Your task to perform on an android device: clear history in the chrome app Image 0: 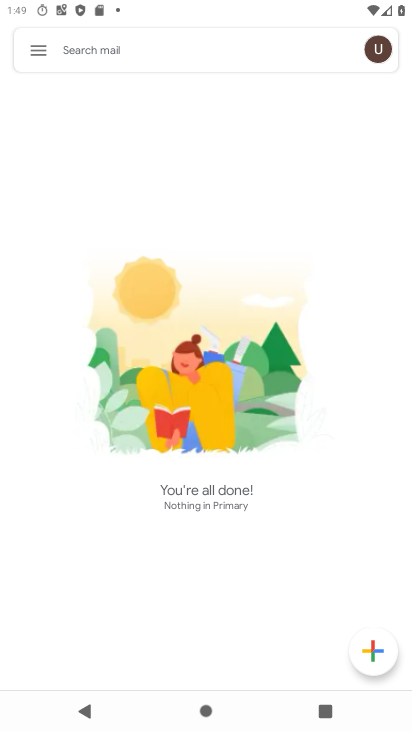
Step 0: press home button
Your task to perform on an android device: clear history in the chrome app Image 1: 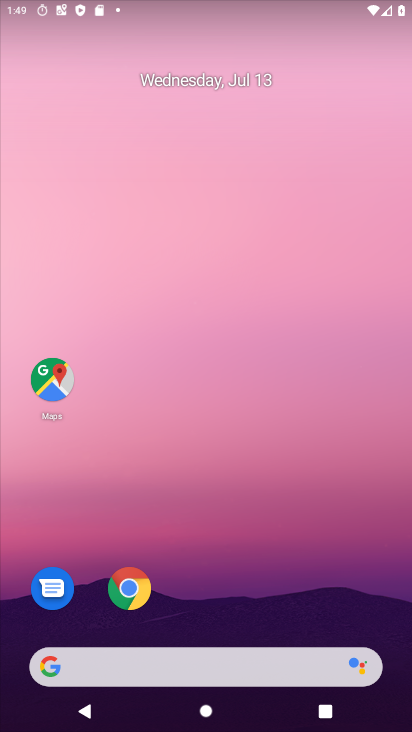
Step 1: drag from (175, 629) to (198, 453)
Your task to perform on an android device: clear history in the chrome app Image 2: 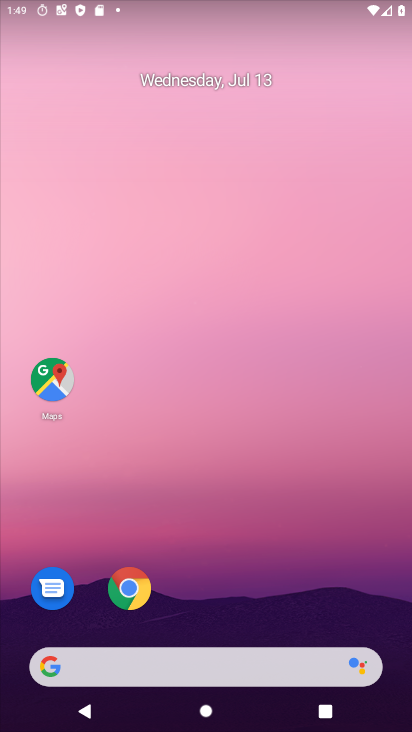
Step 2: click (131, 593)
Your task to perform on an android device: clear history in the chrome app Image 3: 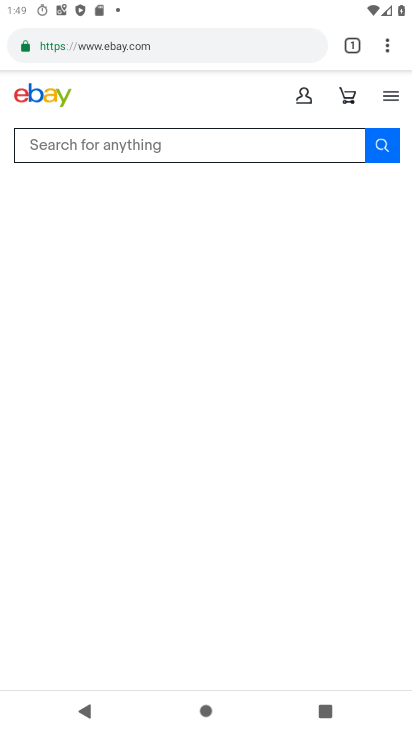
Step 3: click (381, 44)
Your task to perform on an android device: clear history in the chrome app Image 4: 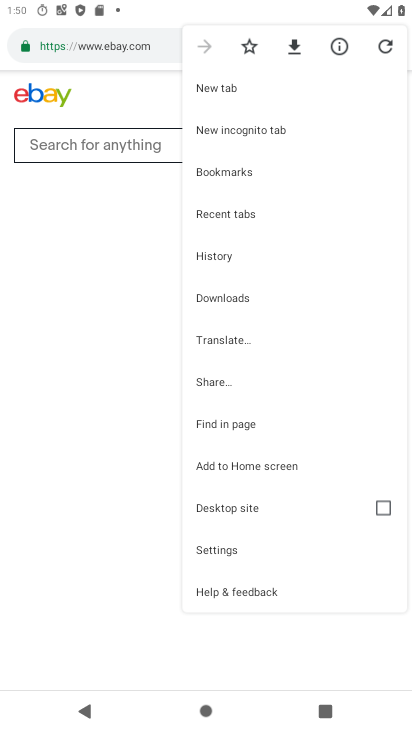
Step 4: click (210, 265)
Your task to perform on an android device: clear history in the chrome app Image 5: 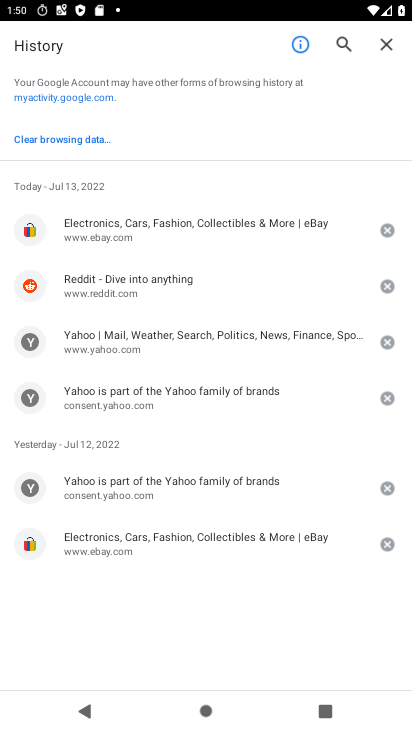
Step 5: click (58, 133)
Your task to perform on an android device: clear history in the chrome app Image 6: 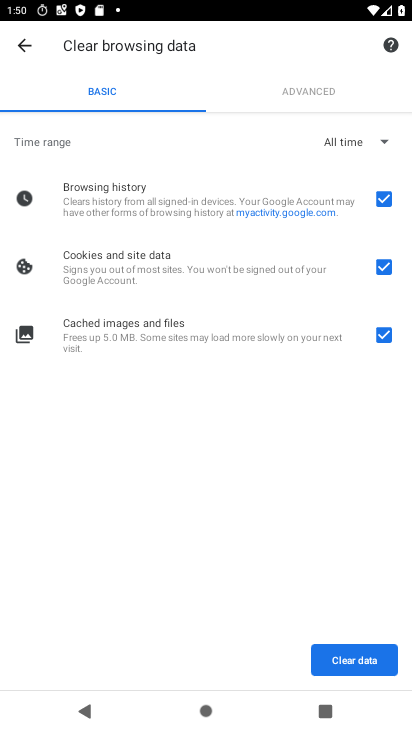
Step 6: click (346, 663)
Your task to perform on an android device: clear history in the chrome app Image 7: 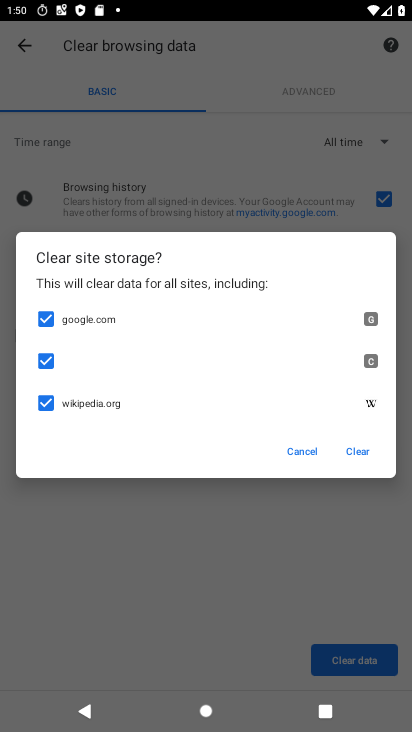
Step 7: click (367, 450)
Your task to perform on an android device: clear history in the chrome app Image 8: 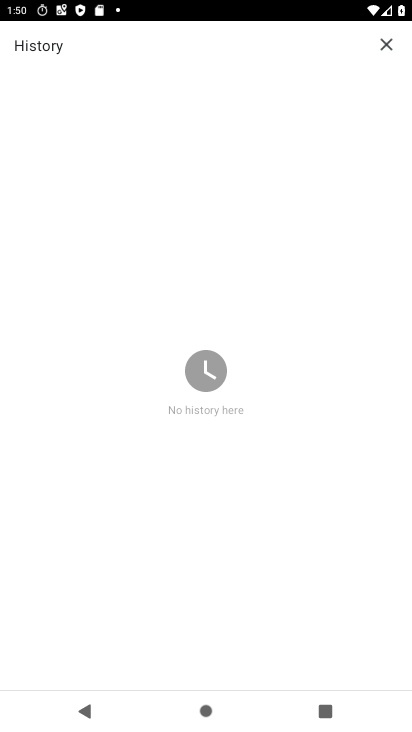
Step 8: task complete